Your task to perform on an android device: turn off smart reply in the gmail app Image 0: 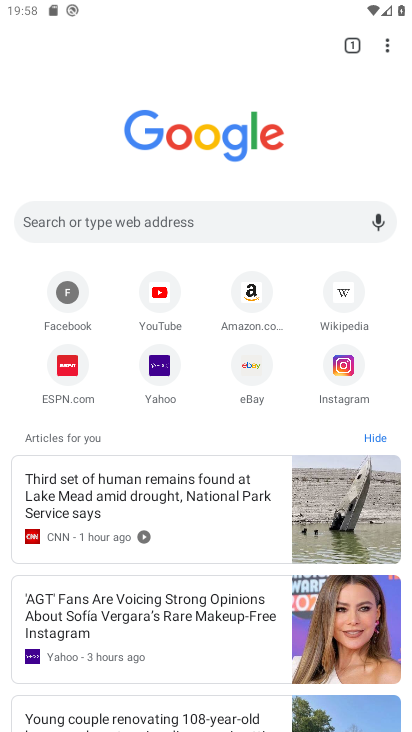
Step 0: press home button
Your task to perform on an android device: turn off smart reply in the gmail app Image 1: 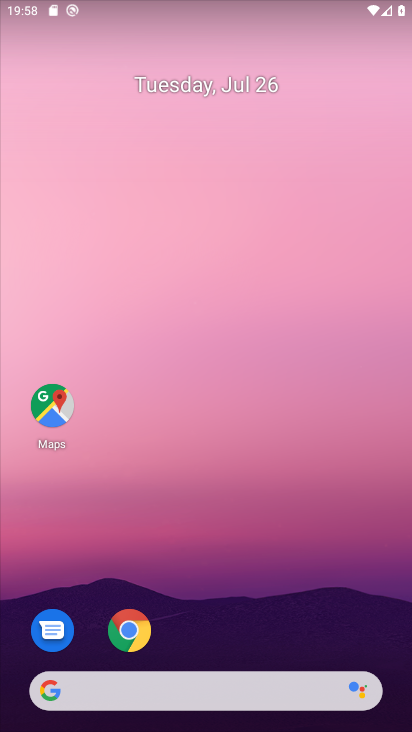
Step 1: drag from (396, 713) to (349, 19)
Your task to perform on an android device: turn off smart reply in the gmail app Image 2: 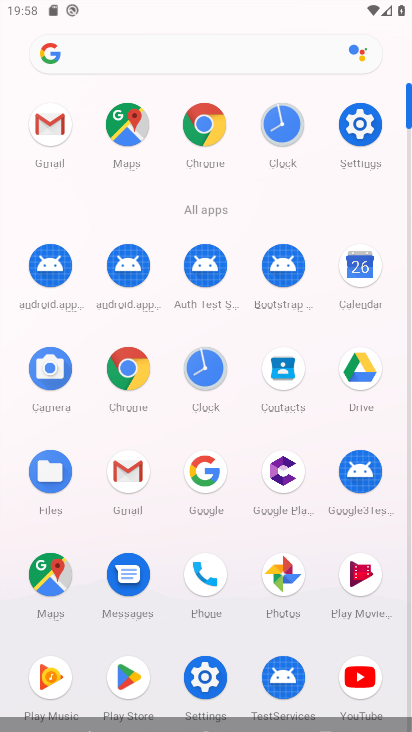
Step 2: click (131, 479)
Your task to perform on an android device: turn off smart reply in the gmail app Image 3: 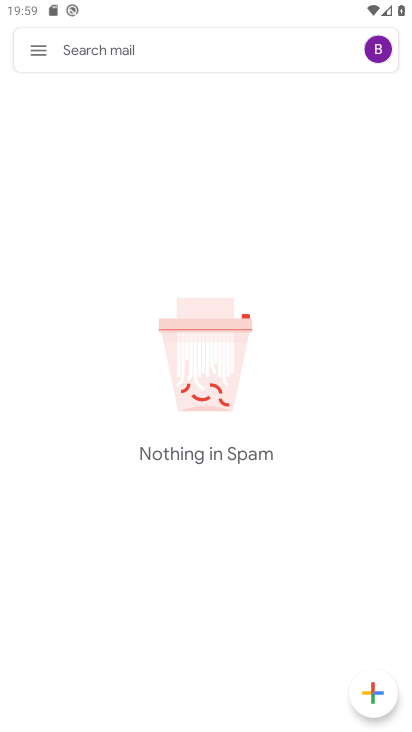
Step 3: click (34, 42)
Your task to perform on an android device: turn off smart reply in the gmail app Image 4: 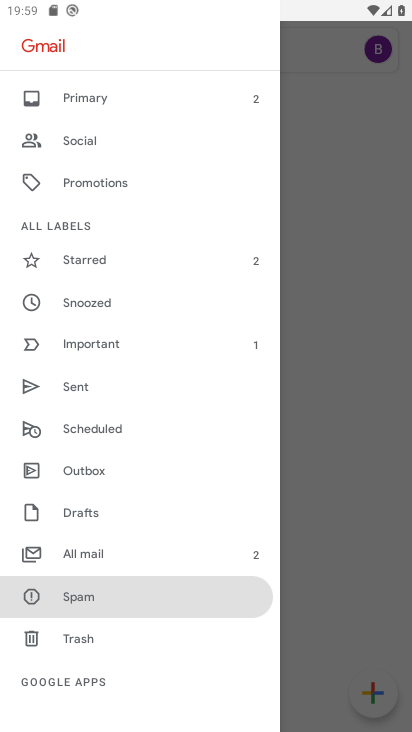
Step 4: drag from (193, 663) to (198, 343)
Your task to perform on an android device: turn off smart reply in the gmail app Image 5: 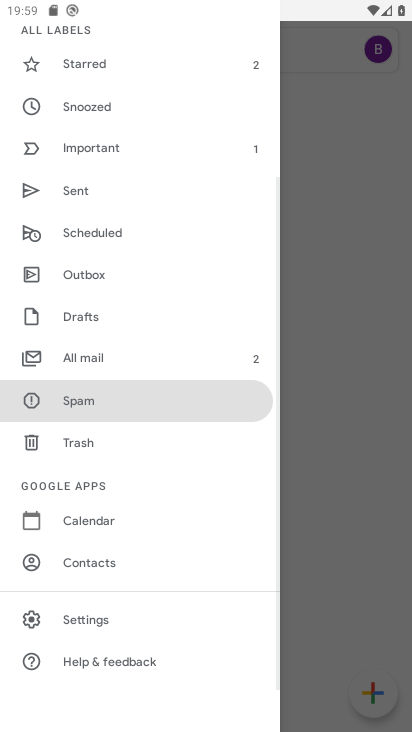
Step 5: click (83, 615)
Your task to perform on an android device: turn off smart reply in the gmail app Image 6: 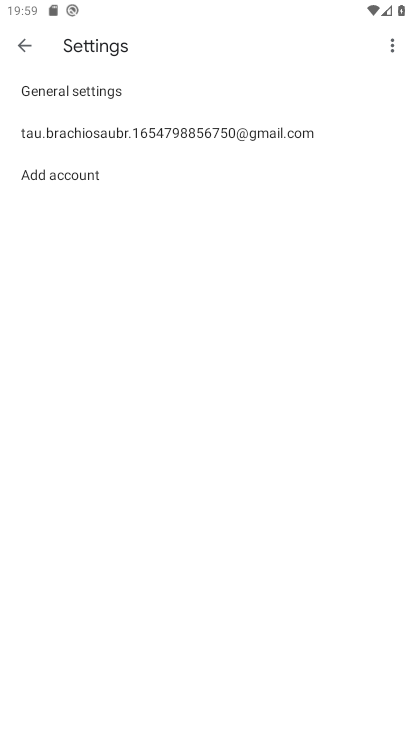
Step 6: click (168, 127)
Your task to perform on an android device: turn off smart reply in the gmail app Image 7: 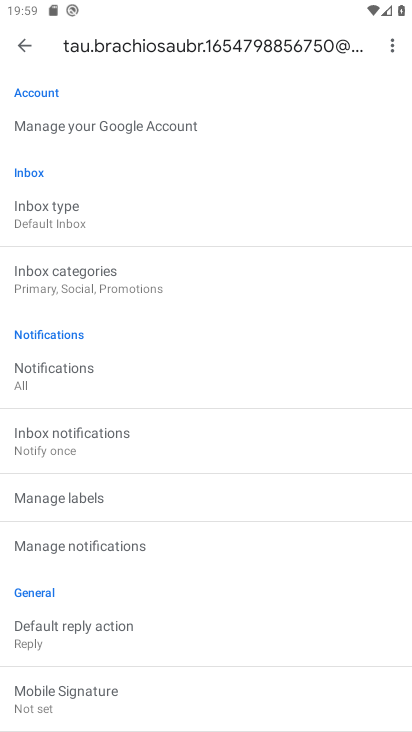
Step 7: drag from (221, 683) to (278, 191)
Your task to perform on an android device: turn off smart reply in the gmail app Image 8: 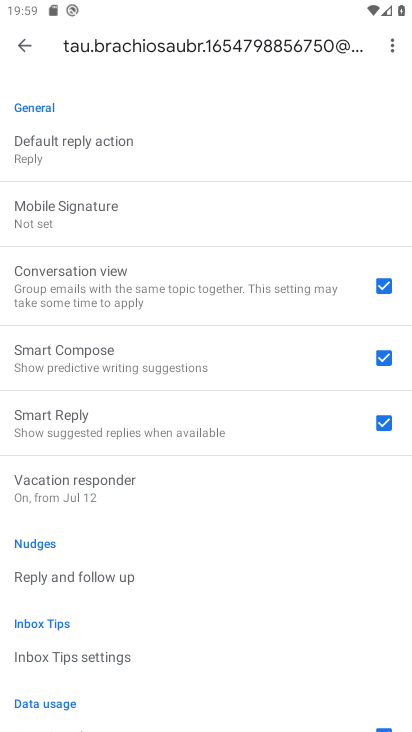
Step 8: click (153, 352)
Your task to perform on an android device: turn off smart reply in the gmail app Image 9: 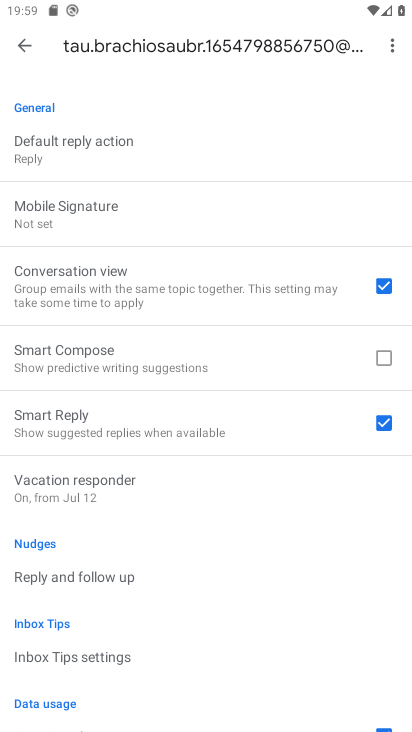
Step 9: task complete